Your task to perform on an android device: allow cookies in the chrome app Image 0: 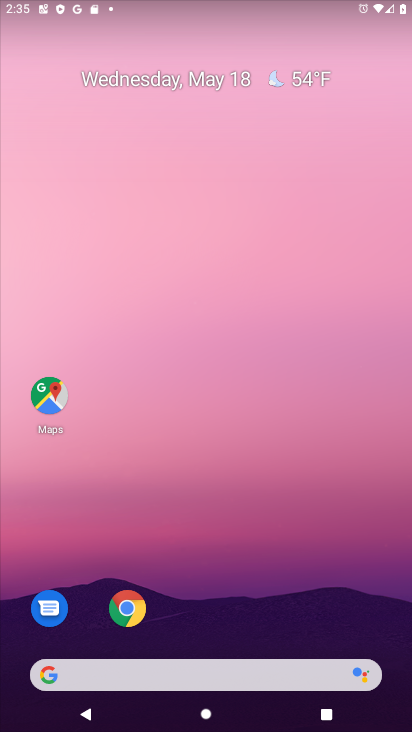
Step 0: click (137, 611)
Your task to perform on an android device: allow cookies in the chrome app Image 1: 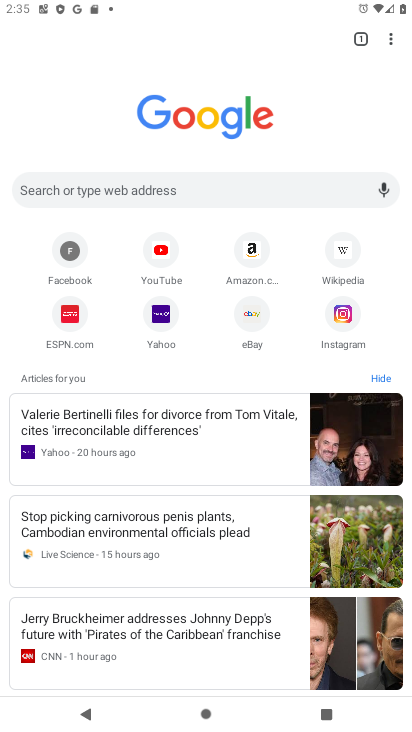
Step 1: click (393, 39)
Your task to perform on an android device: allow cookies in the chrome app Image 2: 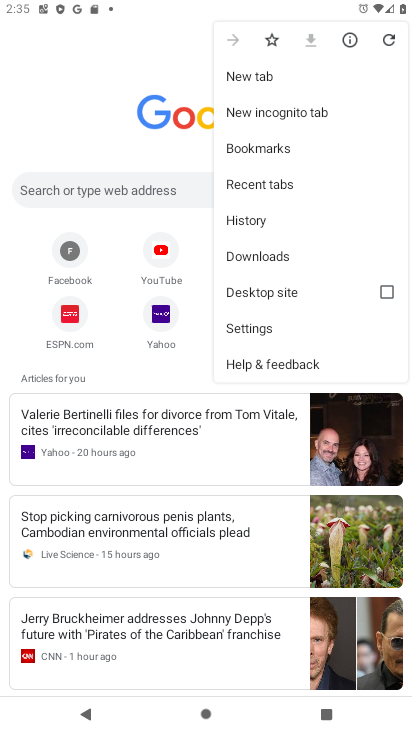
Step 2: click (271, 326)
Your task to perform on an android device: allow cookies in the chrome app Image 3: 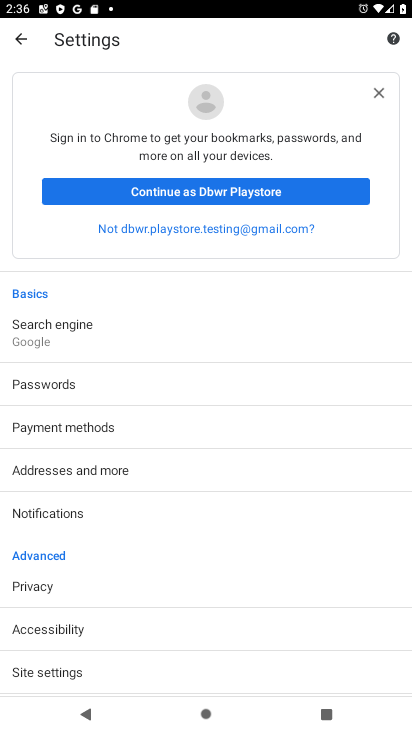
Step 3: click (46, 664)
Your task to perform on an android device: allow cookies in the chrome app Image 4: 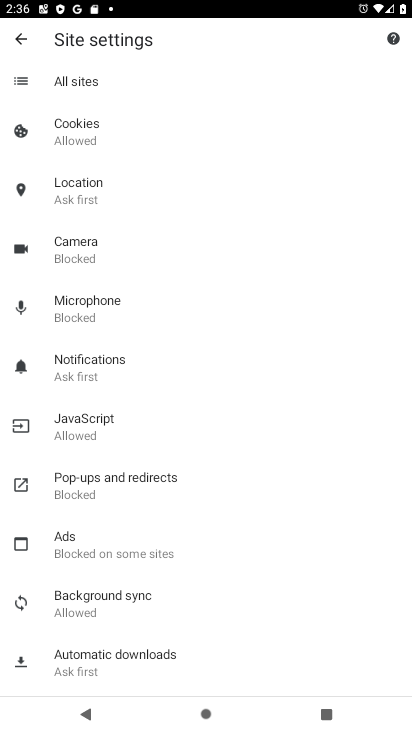
Step 4: click (93, 122)
Your task to perform on an android device: allow cookies in the chrome app Image 5: 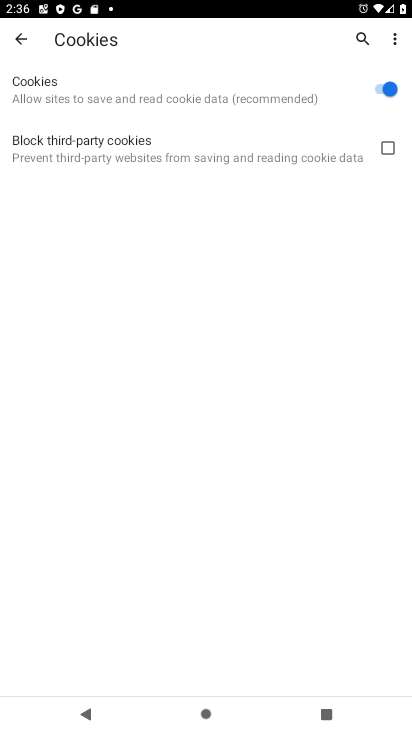
Step 5: task complete